Your task to perform on an android device: Open network settings Image 0: 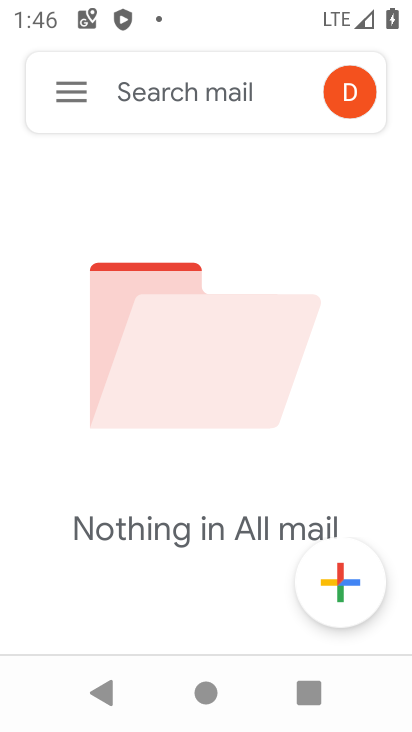
Step 0: press home button
Your task to perform on an android device: Open network settings Image 1: 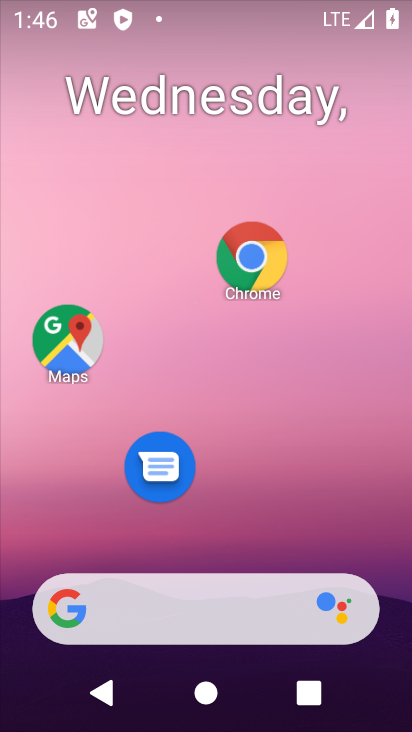
Step 1: drag from (242, 540) to (305, 107)
Your task to perform on an android device: Open network settings Image 2: 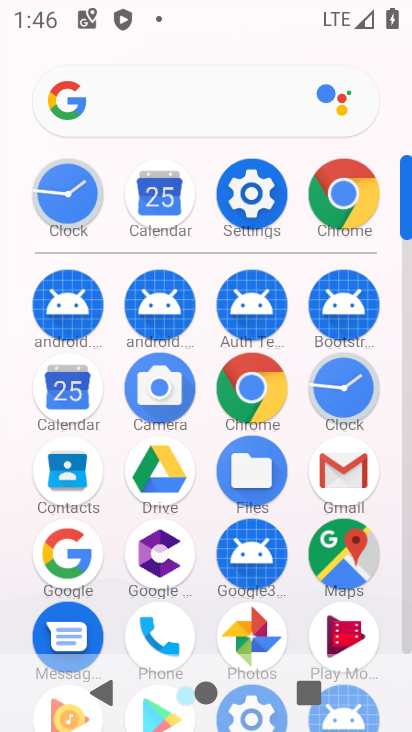
Step 2: click (254, 188)
Your task to perform on an android device: Open network settings Image 3: 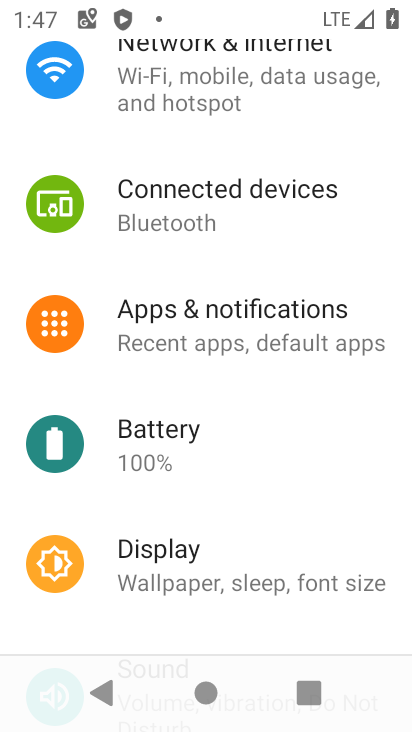
Step 3: drag from (277, 88) to (236, 419)
Your task to perform on an android device: Open network settings Image 4: 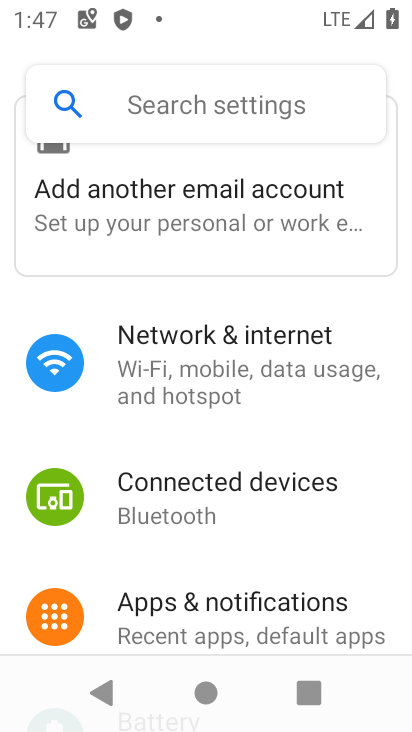
Step 4: click (180, 336)
Your task to perform on an android device: Open network settings Image 5: 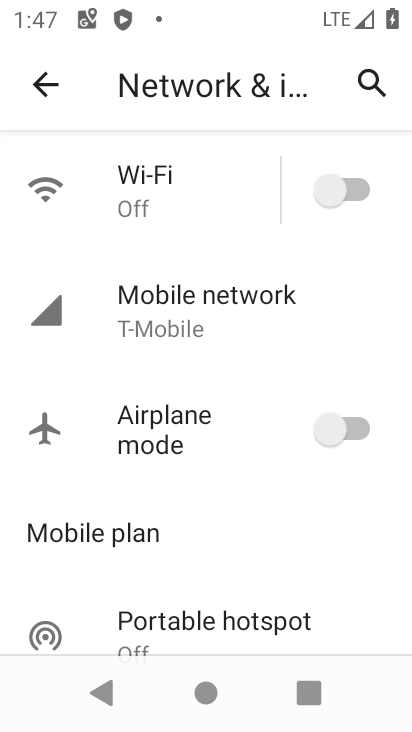
Step 5: task complete